Your task to perform on an android device: turn off priority inbox in the gmail app Image 0: 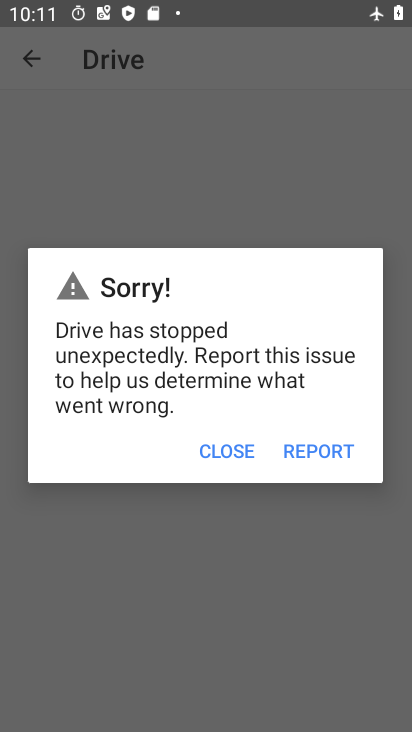
Step 0: press back button
Your task to perform on an android device: turn off priority inbox in the gmail app Image 1: 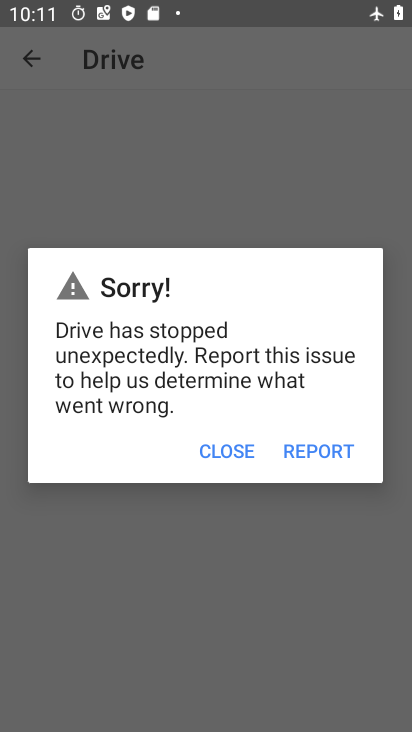
Step 1: press home button
Your task to perform on an android device: turn off priority inbox in the gmail app Image 2: 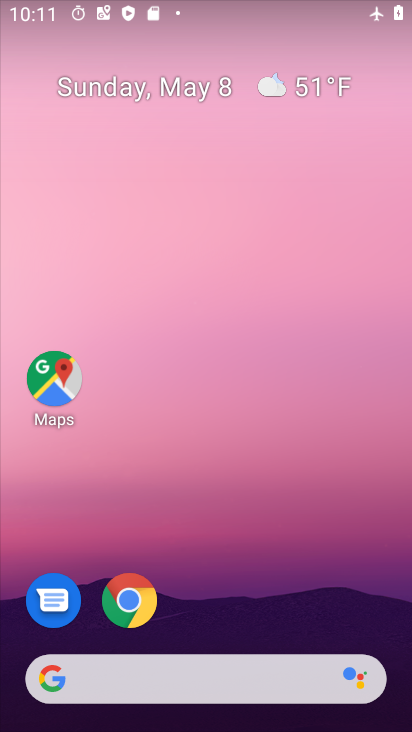
Step 2: drag from (277, 568) to (276, 26)
Your task to perform on an android device: turn off priority inbox in the gmail app Image 3: 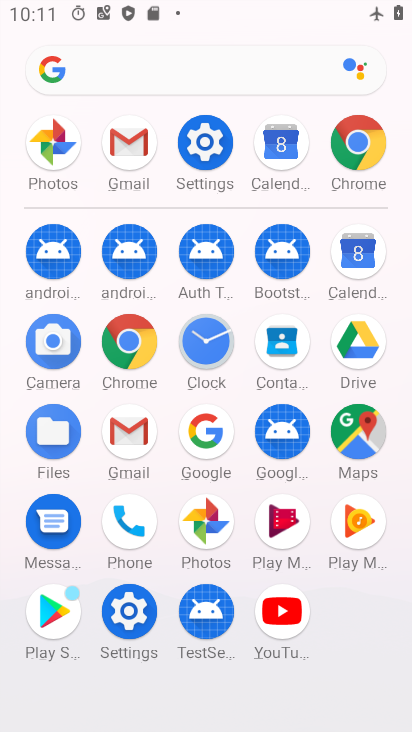
Step 3: click (122, 422)
Your task to perform on an android device: turn off priority inbox in the gmail app Image 4: 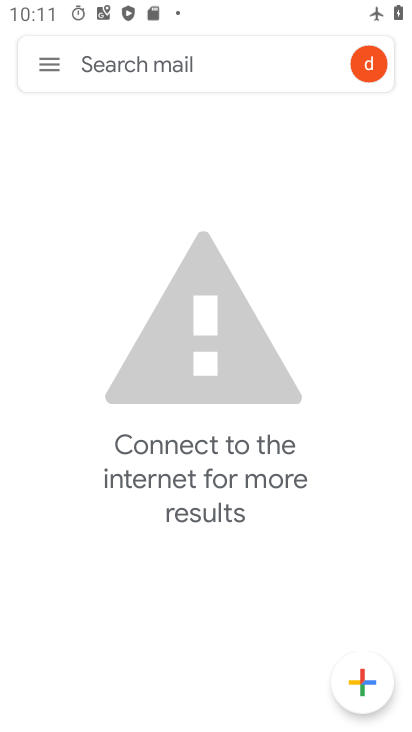
Step 4: click (47, 56)
Your task to perform on an android device: turn off priority inbox in the gmail app Image 5: 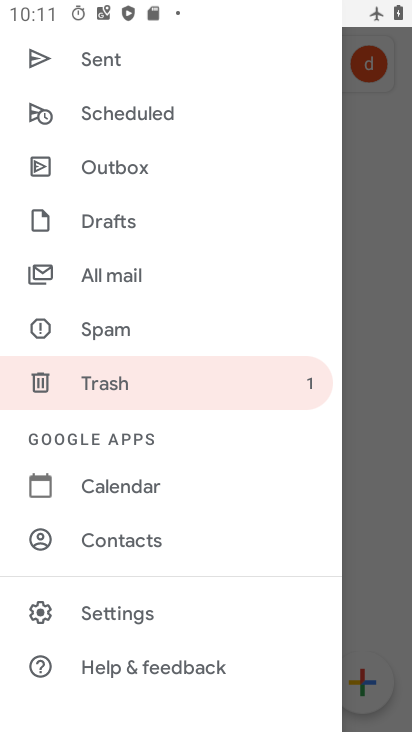
Step 5: click (106, 604)
Your task to perform on an android device: turn off priority inbox in the gmail app Image 6: 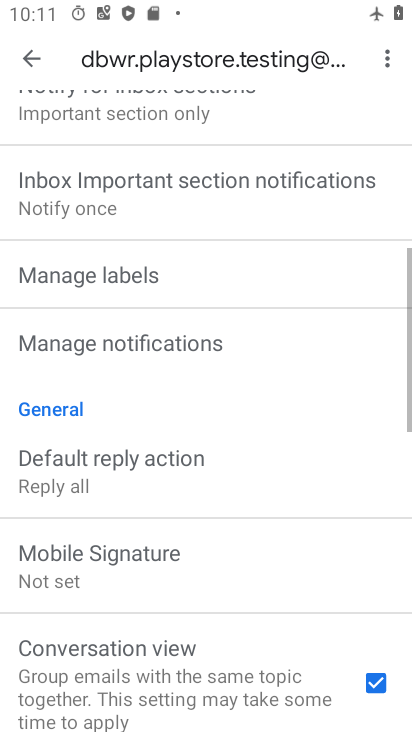
Step 6: drag from (239, 163) to (273, 593)
Your task to perform on an android device: turn off priority inbox in the gmail app Image 7: 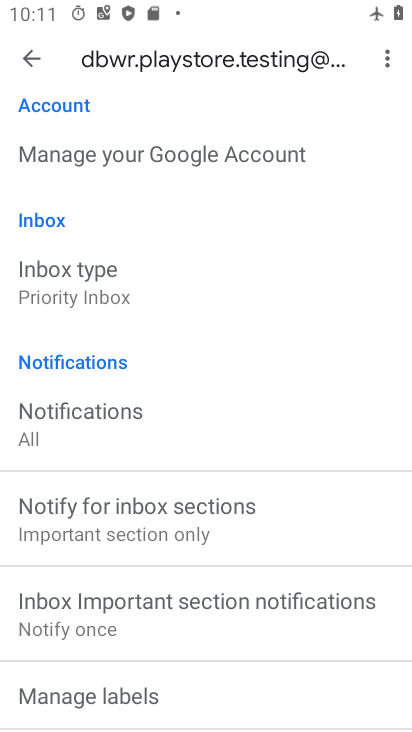
Step 7: click (104, 279)
Your task to perform on an android device: turn off priority inbox in the gmail app Image 8: 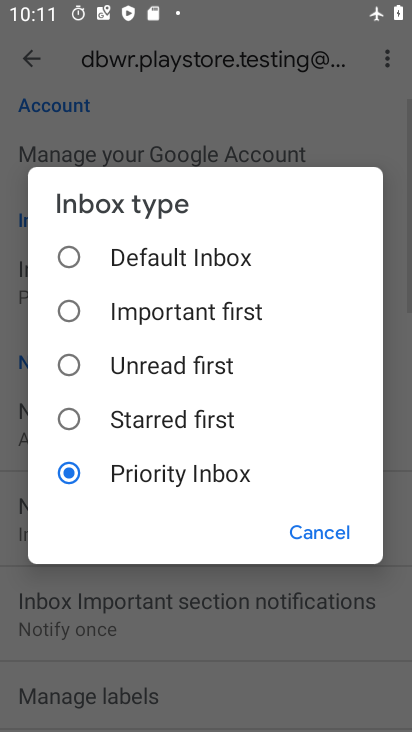
Step 8: click (123, 255)
Your task to perform on an android device: turn off priority inbox in the gmail app Image 9: 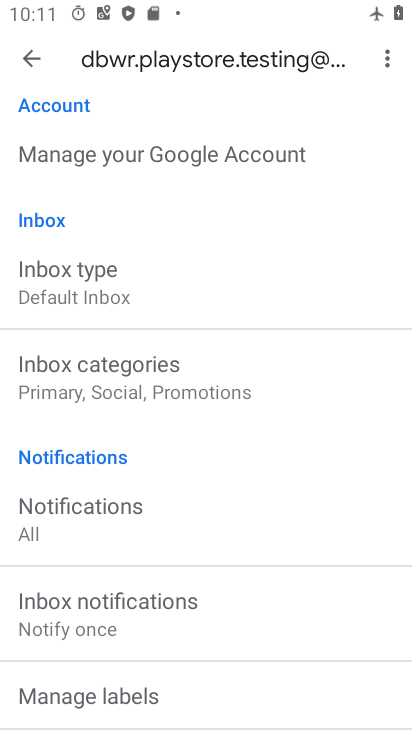
Step 9: task complete